Your task to perform on an android device: Open wifi settings Image 0: 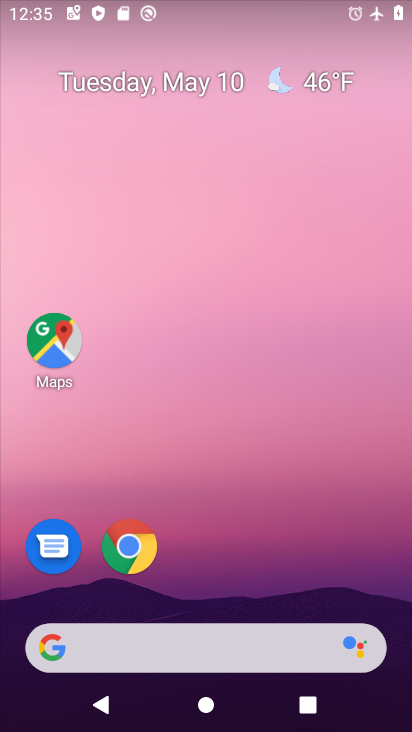
Step 0: drag from (326, 575) to (299, 12)
Your task to perform on an android device: Open wifi settings Image 1: 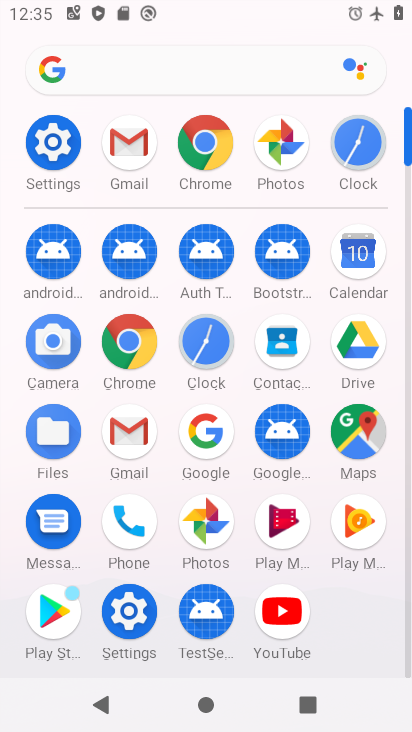
Step 1: click (50, 154)
Your task to perform on an android device: Open wifi settings Image 2: 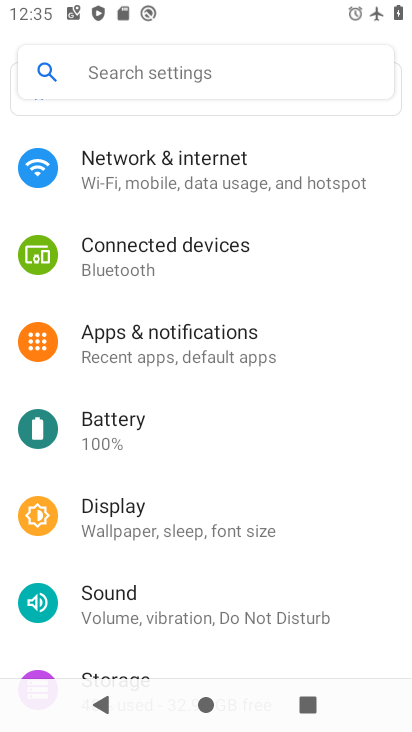
Step 2: click (167, 183)
Your task to perform on an android device: Open wifi settings Image 3: 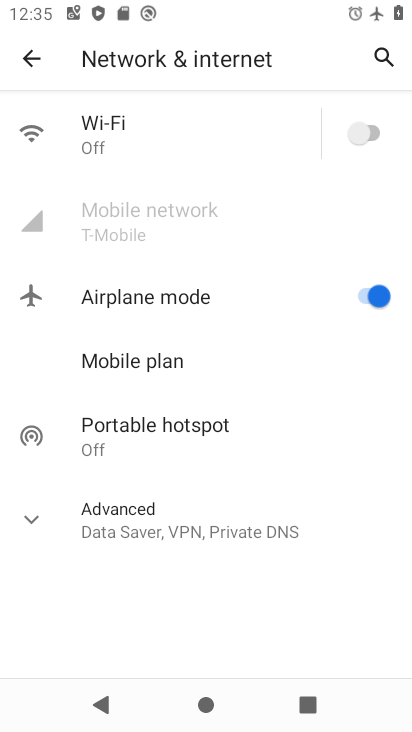
Step 3: click (85, 133)
Your task to perform on an android device: Open wifi settings Image 4: 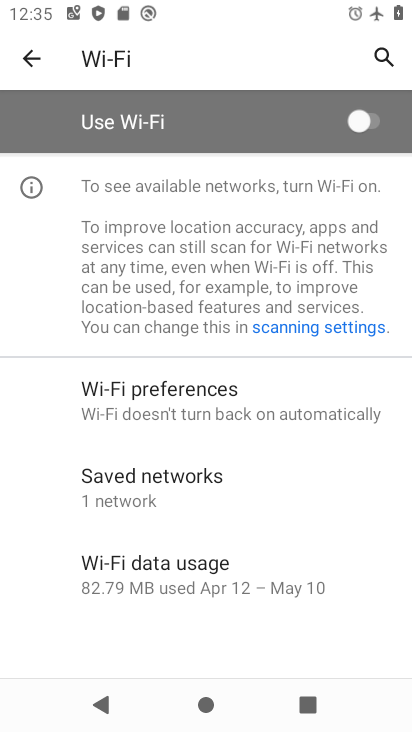
Step 4: task complete